Your task to perform on an android device: Open the stopwatch Image 0: 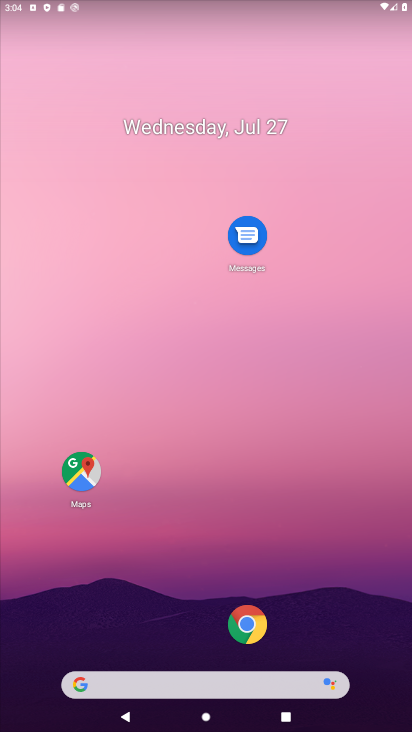
Step 0: drag from (149, 642) to (239, 132)
Your task to perform on an android device: Open the stopwatch Image 1: 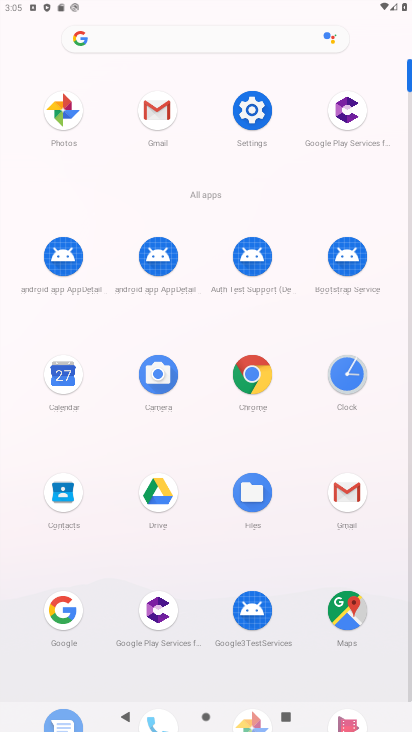
Step 1: click (344, 385)
Your task to perform on an android device: Open the stopwatch Image 2: 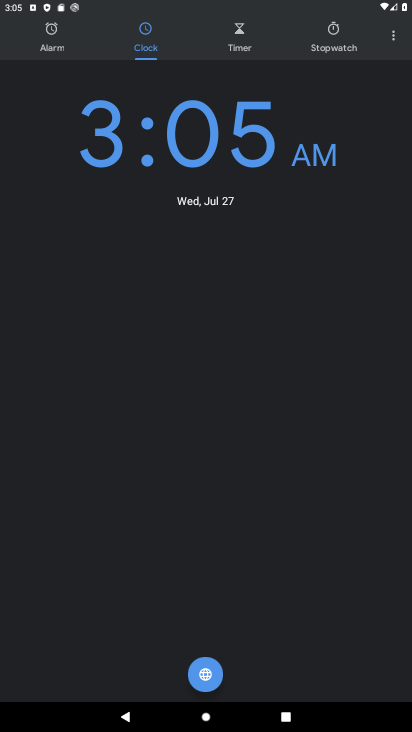
Step 2: click (327, 41)
Your task to perform on an android device: Open the stopwatch Image 3: 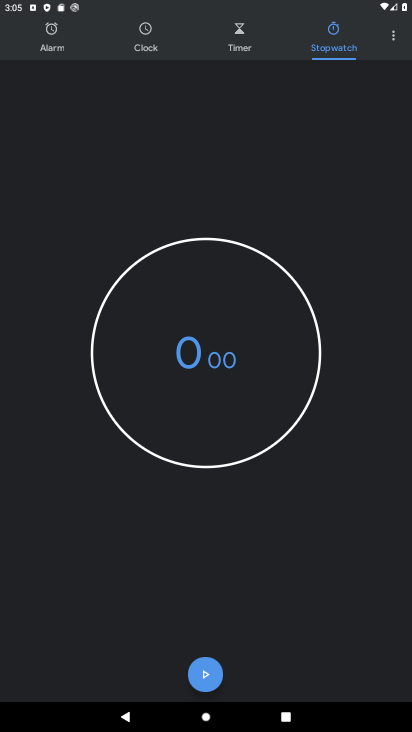
Step 3: task complete